Your task to perform on an android device: Go to calendar. Show me events next week Image 0: 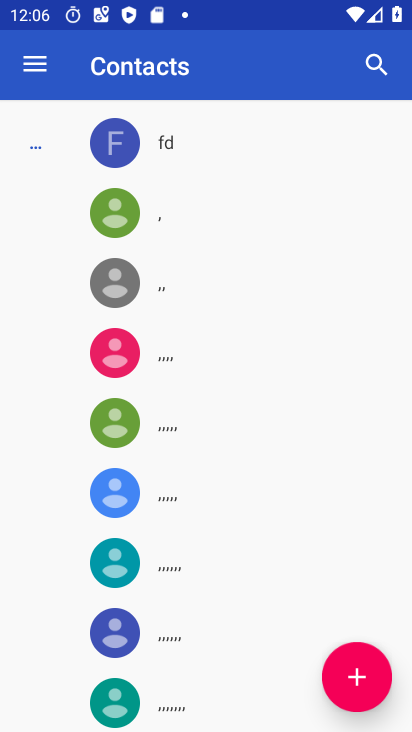
Step 0: press home button
Your task to perform on an android device: Go to calendar. Show me events next week Image 1: 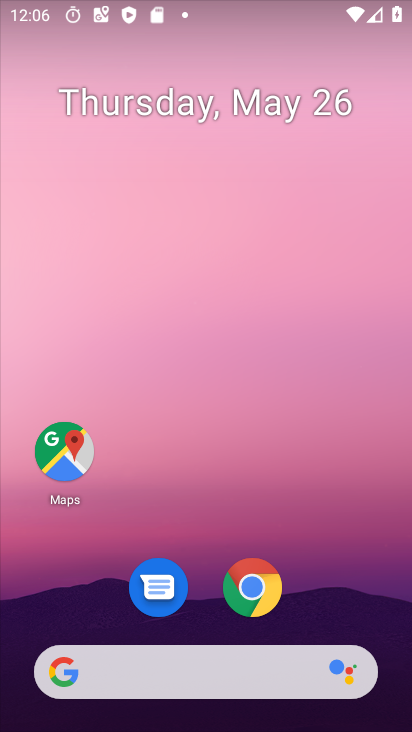
Step 1: drag from (224, 704) to (133, 199)
Your task to perform on an android device: Go to calendar. Show me events next week Image 2: 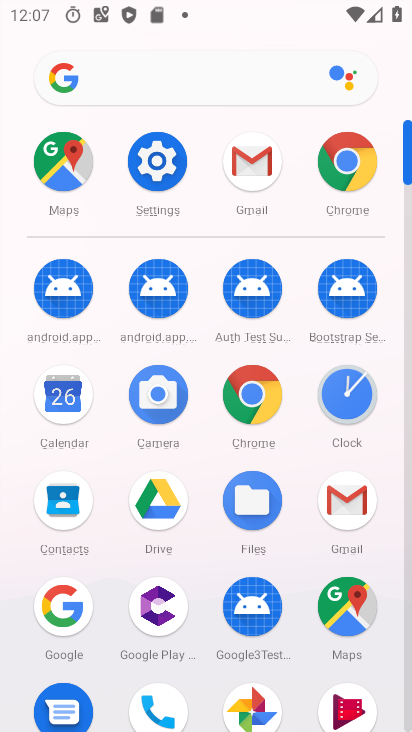
Step 2: click (79, 415)
Your task to perform on an android device: Go to calendar. Show me events next week Image 3: 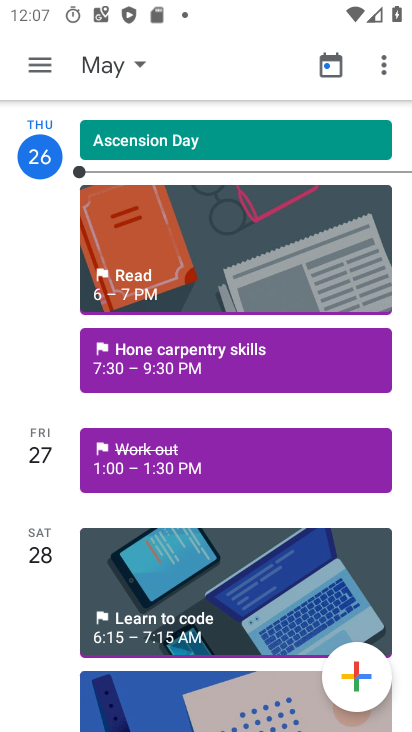
Step 3: click (46, 59)
Your task to perform on an android device: Go to calendar. Show me events next week Image 4: 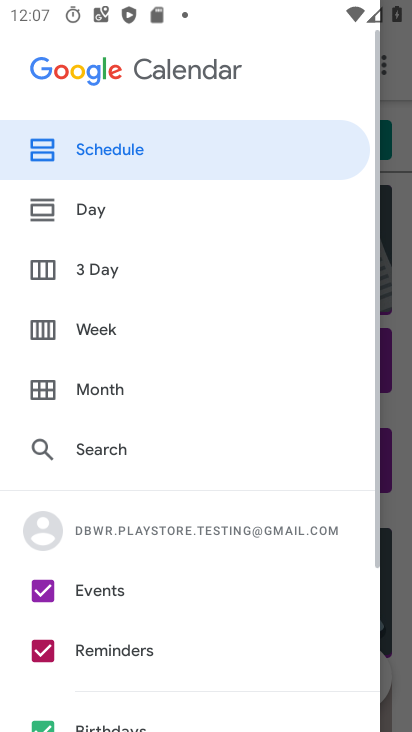
Step 4: click (116, 333)
Your task to perform on an android device: Go to calendar. Show me events next week Image 5: 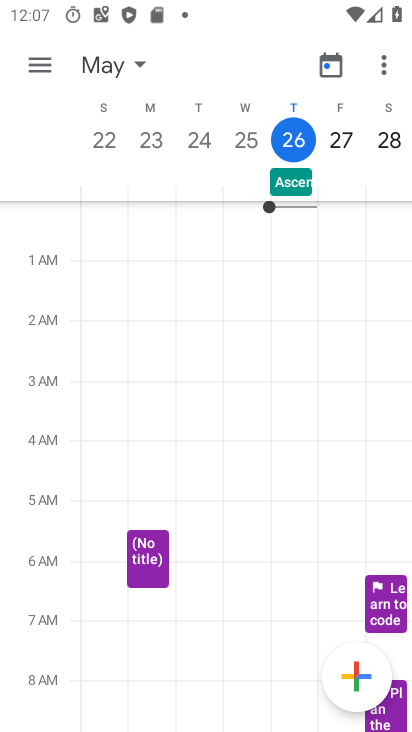
Step 5: task complete